Your task to perform on an android device: Open internet settings Image 0: 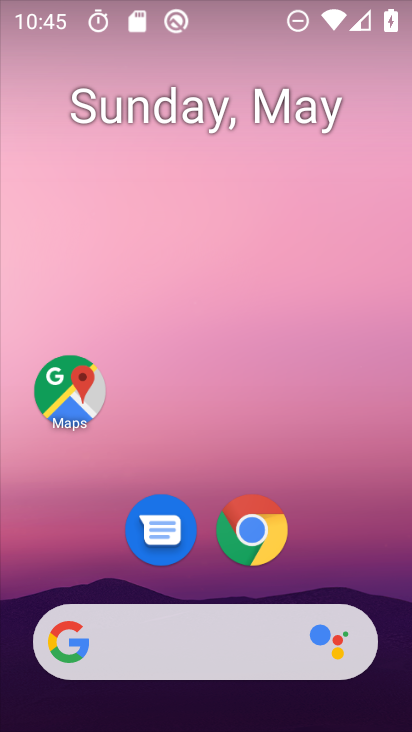
Step 0: press home button
Your task to perform on an android device: Open internet settings Image 1: 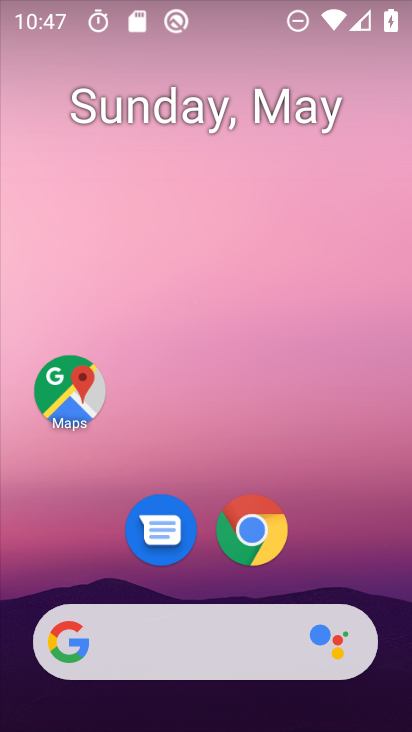
Step 1: drag from (296, 689) to (177, 168)
Your task to perform on an android device: Open internet settings Image 2: 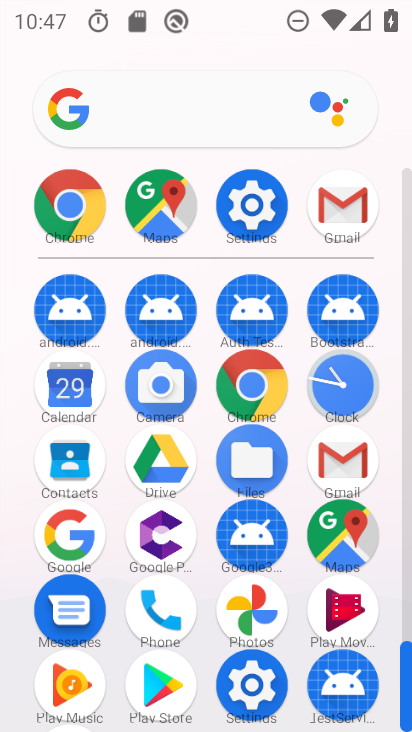
Step 2: click (263, 230)
Your task to perform on an android device: Open internet settings Image 3: 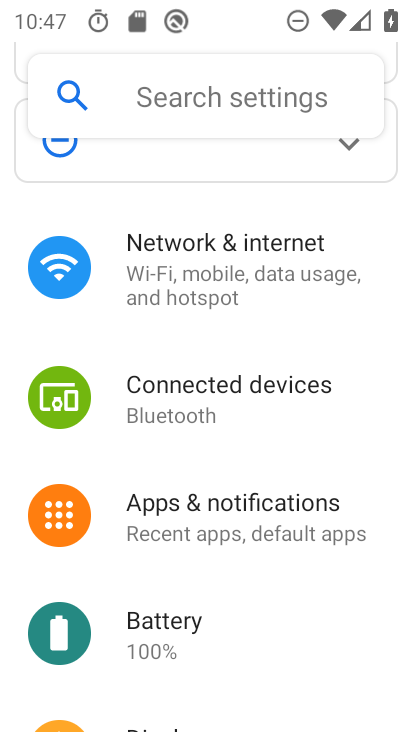
Step 3: drag from (208, 394) to (227, 354)
Your task to perform on an android device: Open internet settings Image 4: 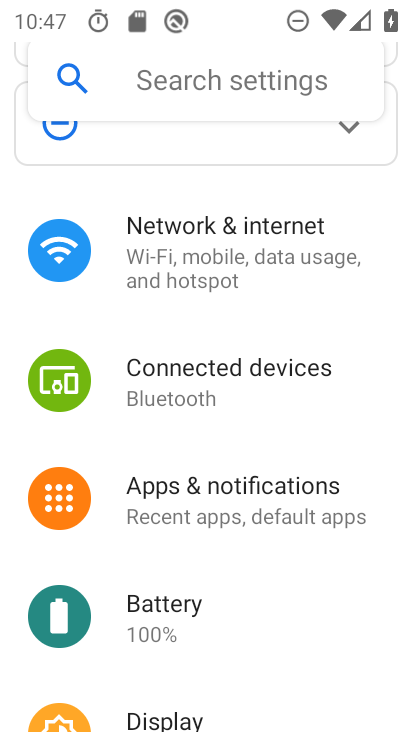
Step 4: click (184, 249)
Your task to perform on an android device: Open internet settings Image 5: 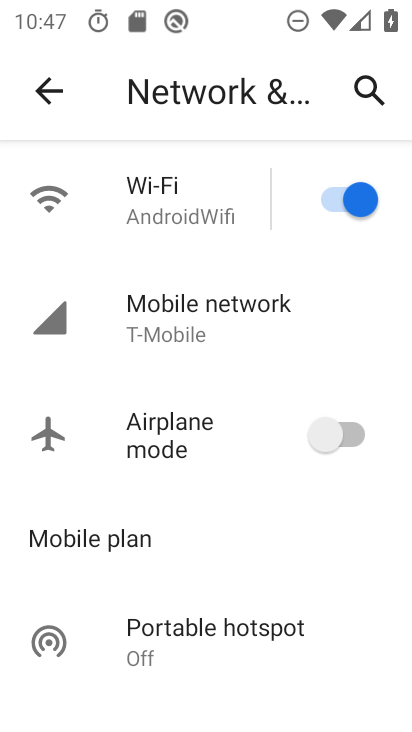
Step 5: task complete